Your task to perform on an android device: turn vacation reply on in the gmail app Image 0: 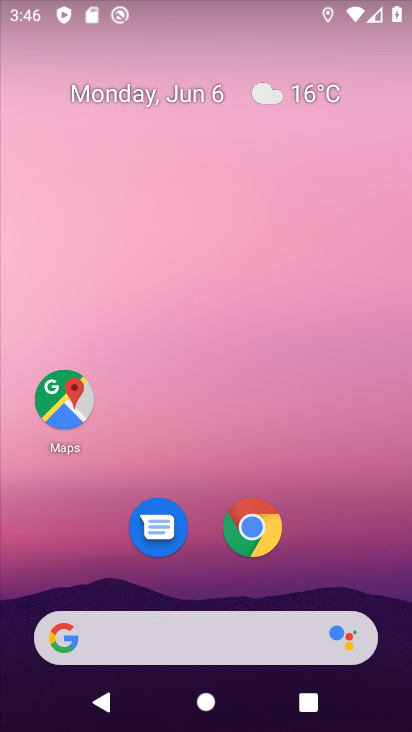
Step 0: drag from (355, 456) to (290, 201)
Your task to perform on an android device: turn vacation reply on in the gmail app Image 1: 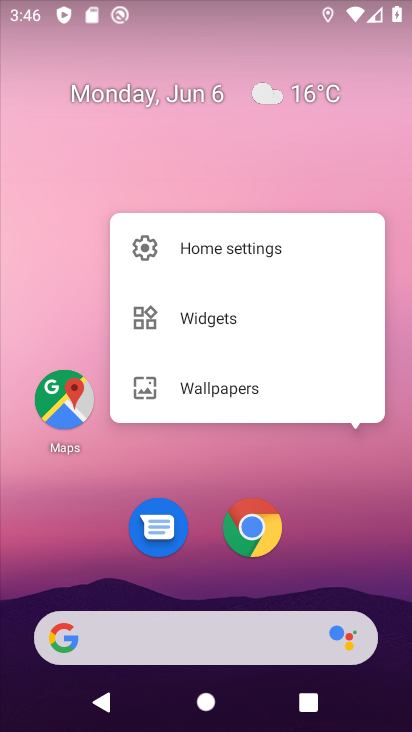
Step 1: click (294, 150)
Your task to perform on an android device: turn vacation reply on in the gmail app Image 2: 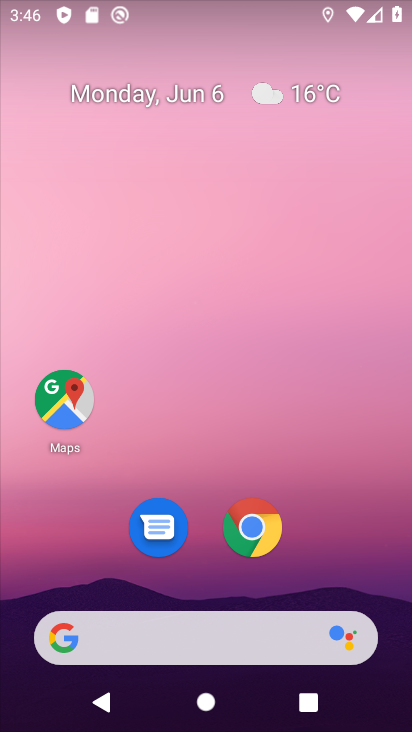
Step 2: drag from (358, 552) to (394, 322)
Your task to perform on an android device: turn vacation reply on in the gmail app Image 3: 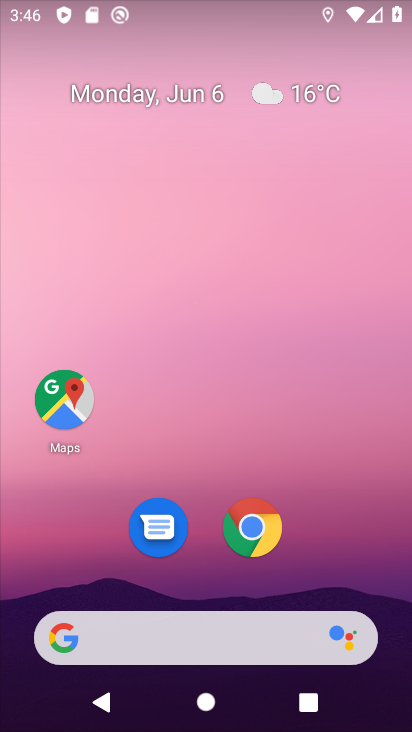
Step 3: drag from (350, 484) to (380, 245)
Your task to perform on an android device: turn vacation reply on in the gmail app Image 4: 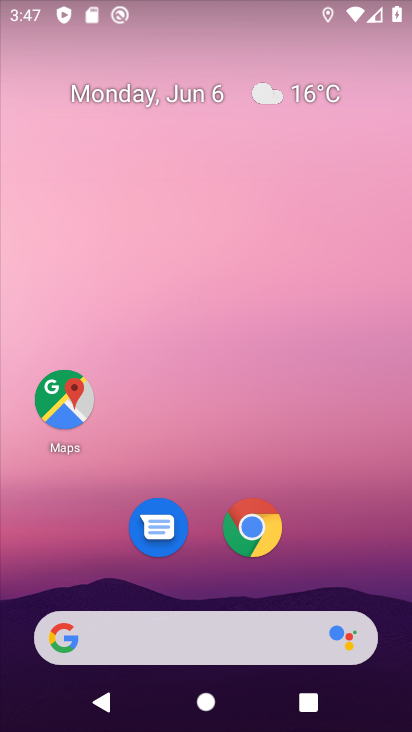
Step 4: drag from (372, 456) to (369, 180)
Your task to perform on an android device: turn vacation reply on in the gmail app Image 5: 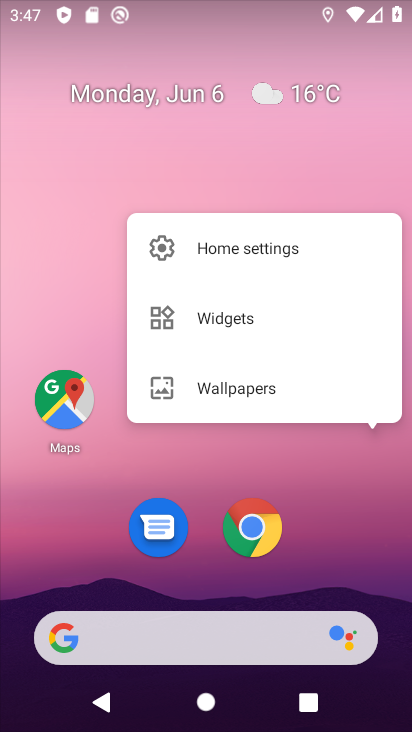
Step 5: click (369, 180)
Your task to perform on an android device: turn vacation reply on in the gmail app Image 6: 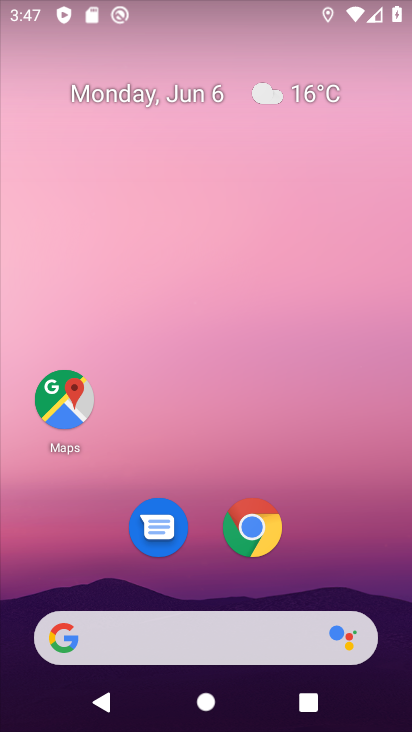
Step 6: click (280, 143)
Your task to perform on an android device: turn vacation reply on in the gmail app Image 7: 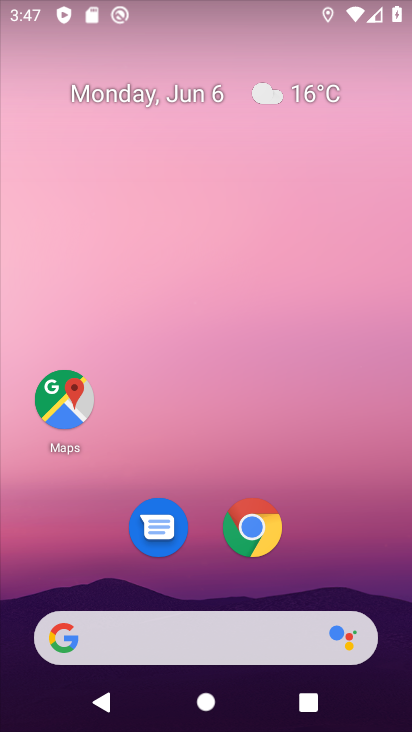
Step 7: drag from (345, 566) to (350, 282)
Your task to perform on an android device: turn vacation reply on in the gmail app Image 8: 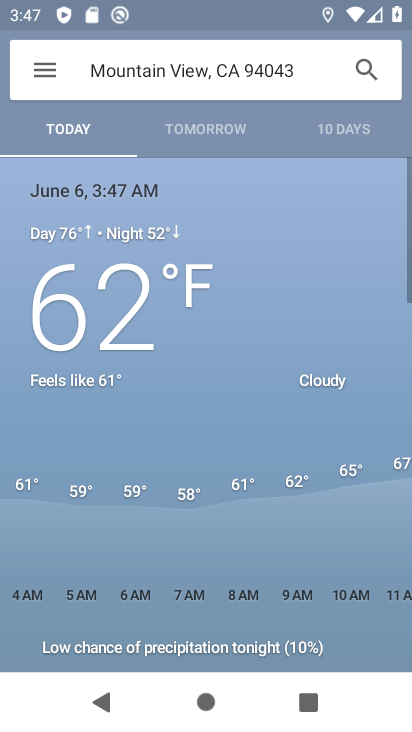
Step 8: press home button
Your task to perform on an android device: turn vacation reply on in the gmail app Image 9: 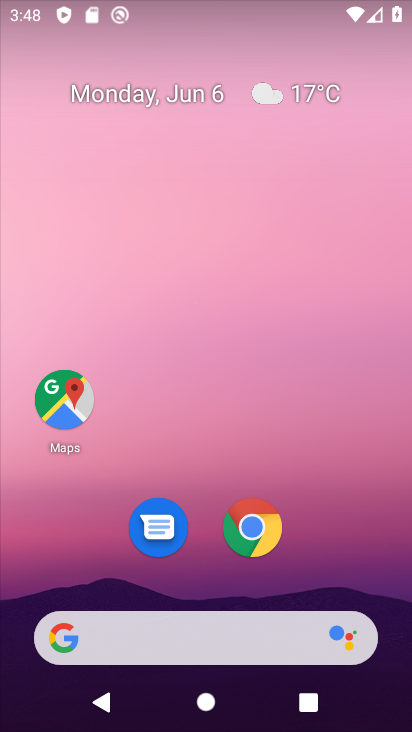
Step 9: drag from (369, 499) to (378, 47)
Your task to perform on an android device: turn vacation reply on in the gmail app Image 10: 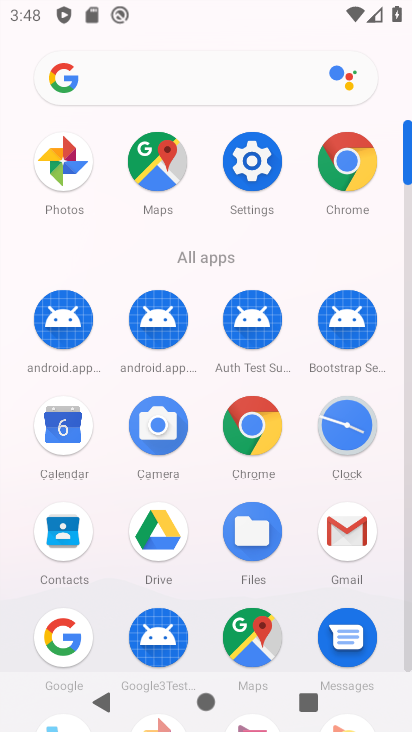
Step 10: click (354, 542)
Your task to perform on an android device: turn vacation reply on in the gmail app Image 11: 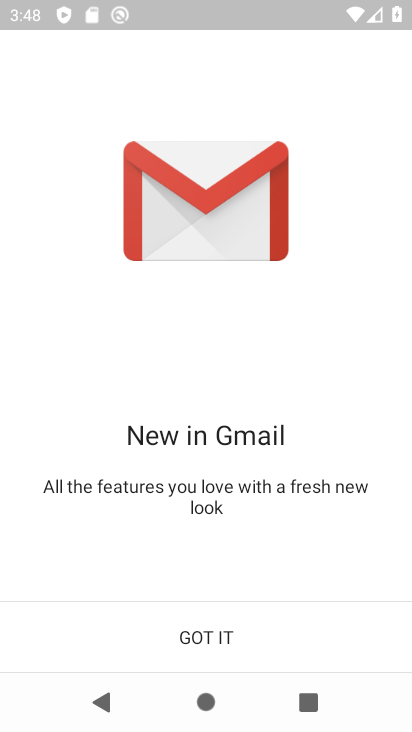
Step 11: click (302, 618)
Your task to perform on an android device: turn vacation reply on in the gmail app Image 12: 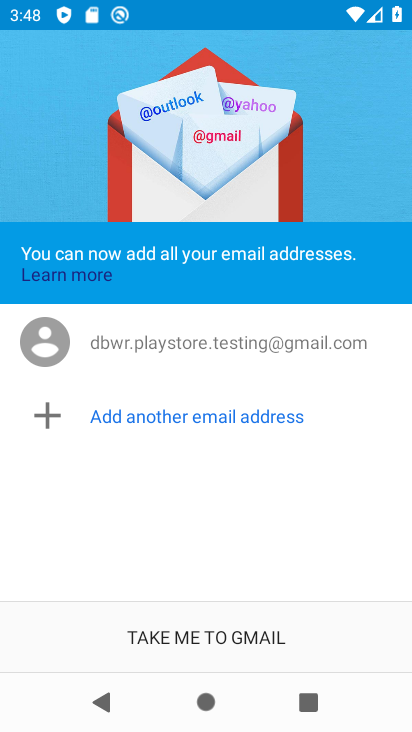
Step 12: click (275, 638)
Your task to perform on an android device: turn vacation reply on in the gmail app Image 13: 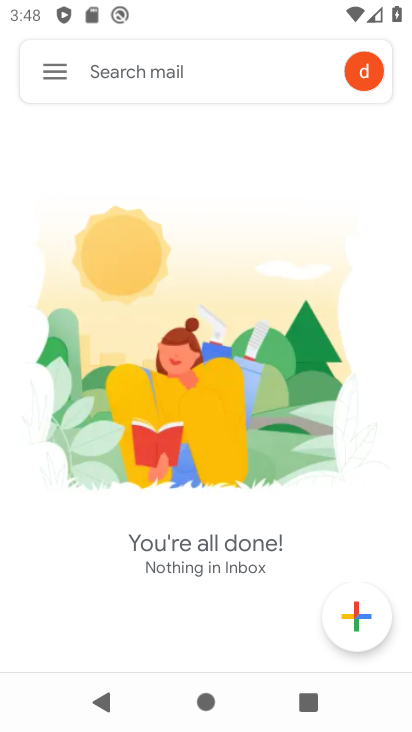
Step 13: click (58, 64)
Your task to perform on an android device: turn vacation reply on in the gmail app Image 14: 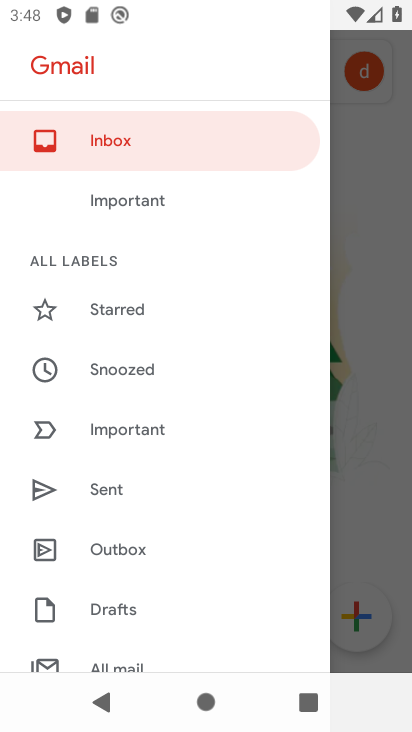
Step 14: drag from (277, 498) to (225, 137)
Your task to perform on an android device: turn vacation reply on in the gmail app Image 15: 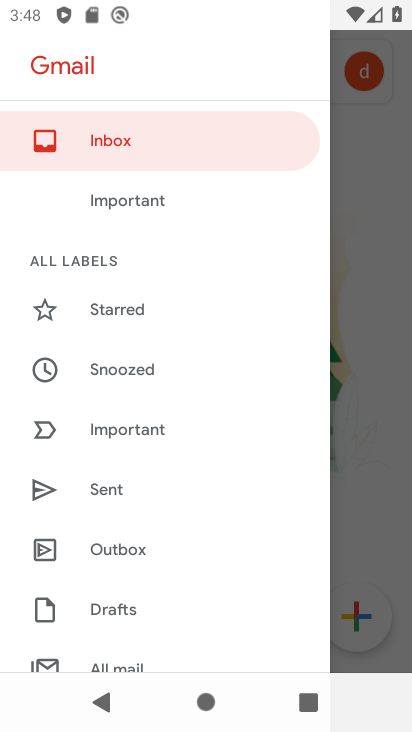
Step 15: drag from (228, 577) to (180, 128)
Your task to perform on an android device: turn vacation reply on in the gmail app Image 16: 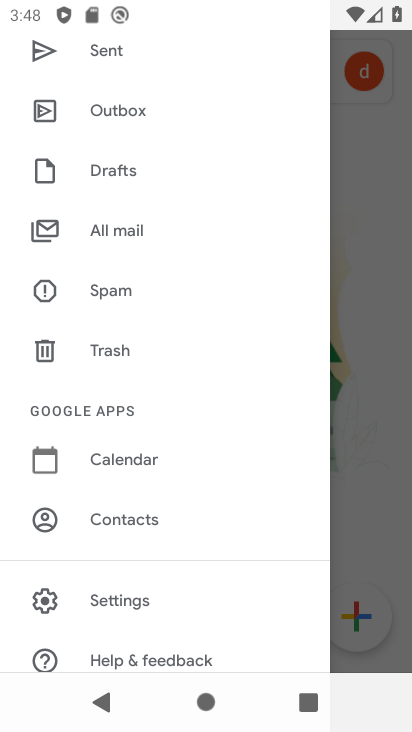
Step 16: click (116, 590)
Your task to perform on an android device: turn vacation reply on in the gmail app Image 17: 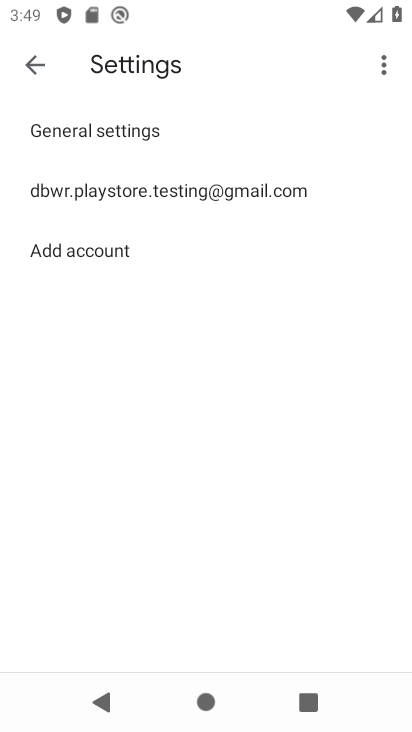
Step 17: click (194, 133)
Your task to perform on an android device: turn vacation reply on in the gmail app Image 18: 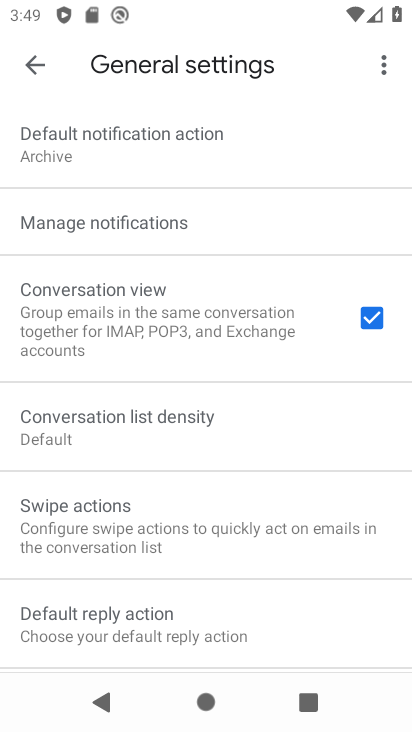
Step 18: drag from (220, 547) to (131, 73)
Your task to perform on an android device: turn vacation reply on in the gmail app Image 19: 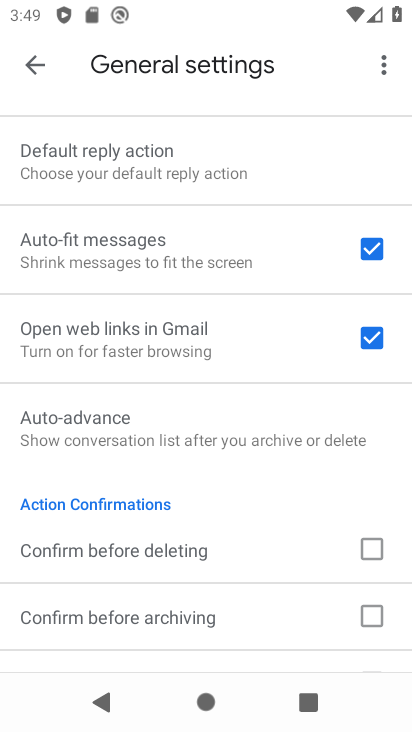
Step 19: drag from (156, 605) to (168, 329)
Your task to perform on an android device: turn vacation reply on in the gmail app Image 20: 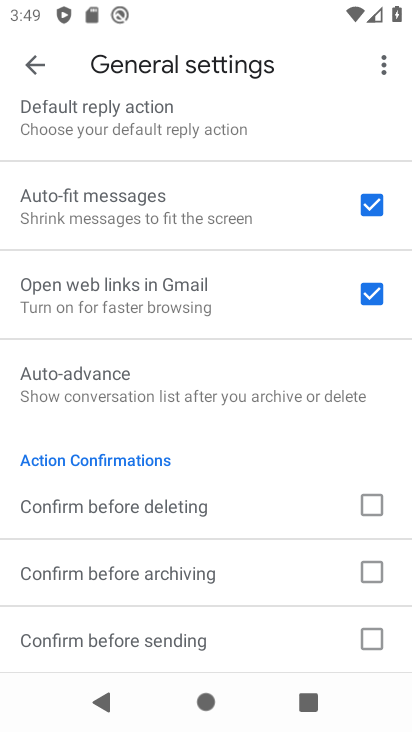
Step 20: click (377, 51)
Your task to perform on an android device: turn vacation reply on in the gmail app Image 21: 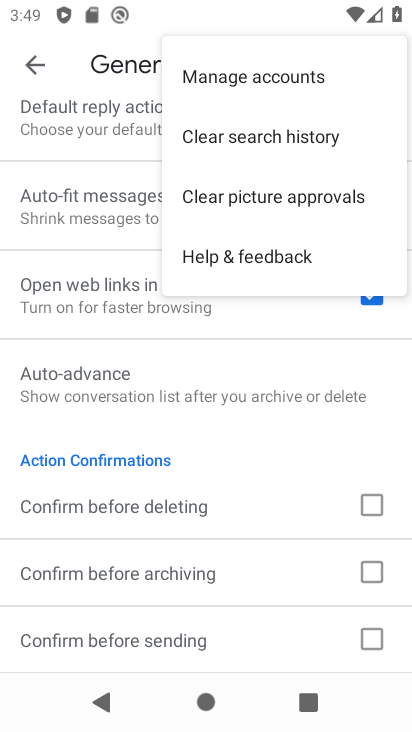
Step 21: task complete